Your task to perform on an android device: Go to eBay Image 0: 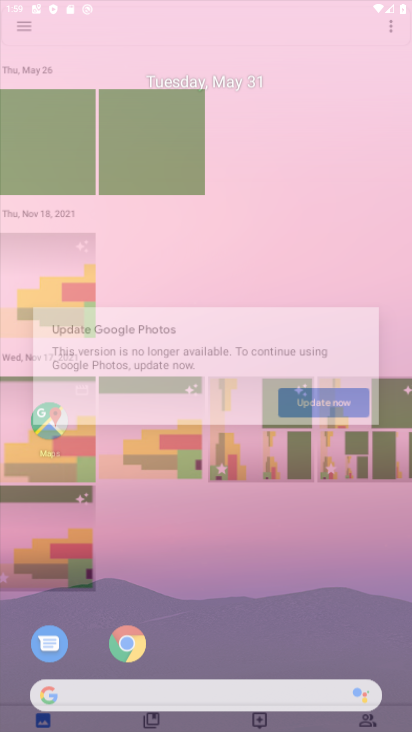
Step 0: click (133, 644)
Your task to perform on an android device: Go to eBay Image 1: 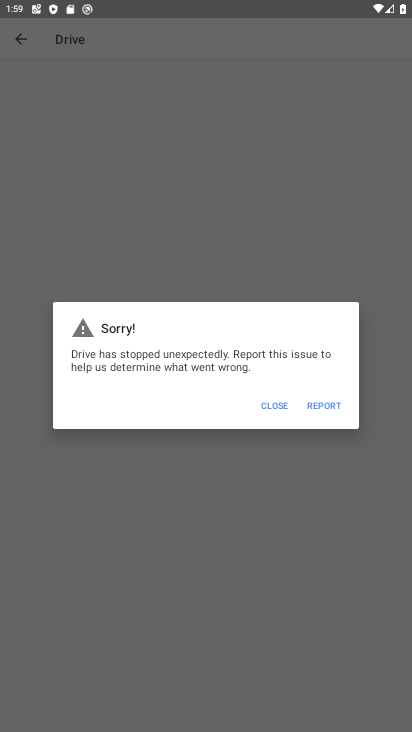
Step 1: press home button
Your task to perform on an android device: Go to eBay Image 2: 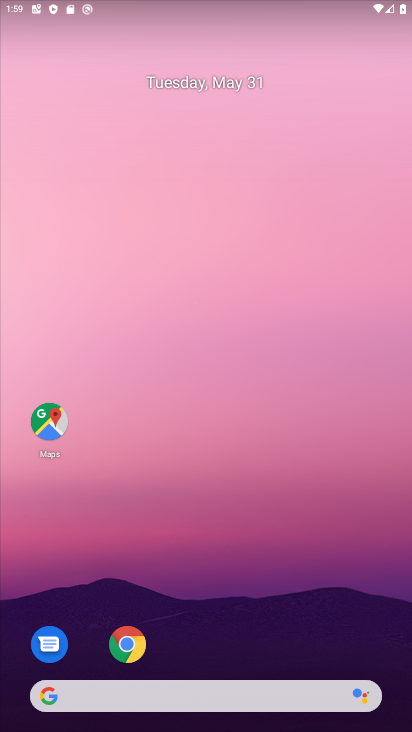
Step 2: click (131, 645)
Your task to perform on an android device: Go to eBay Image 3: 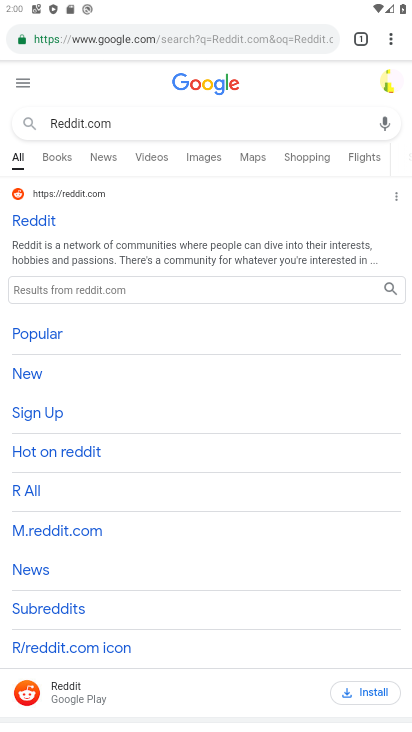
Step 3: click (328, 29)
Your task to perform on an android device: Go to eBay Image 4: 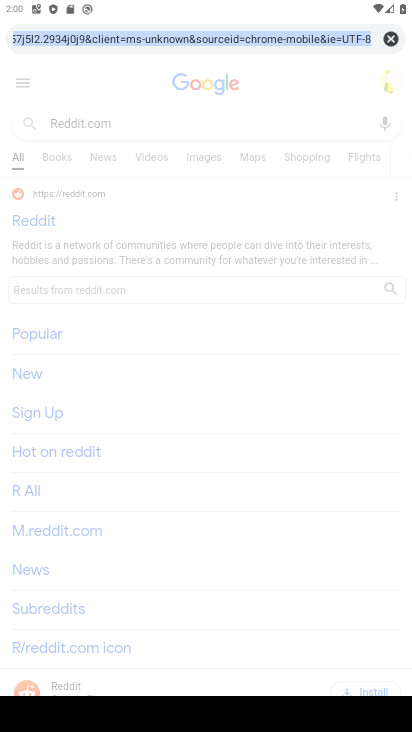
Step 4: click (384, 38)
Your task to perform on an android device: Go to eBay Image 5: 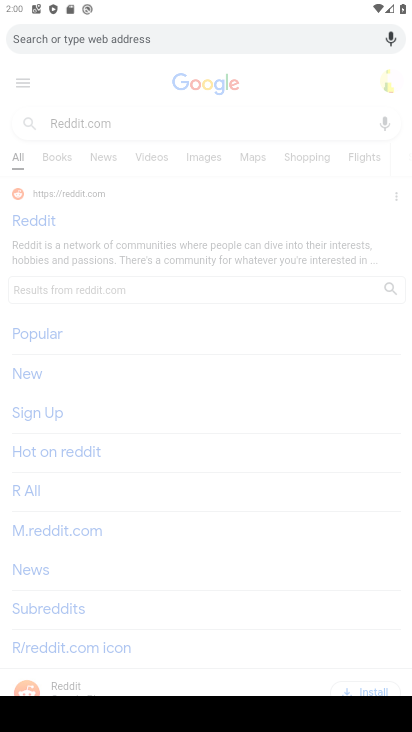
Step 5: type "eBay"
Your task to perform on an android device: Go to eBay Image 6: 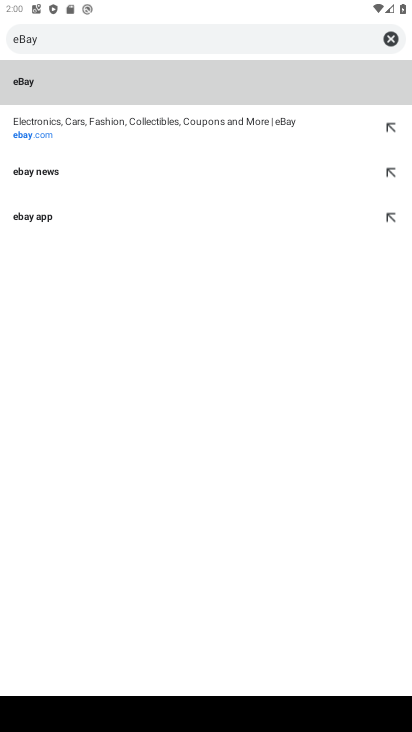
Step 6: click (18, 83)
Your task to perform on an android device: Go to eBay Image 7: 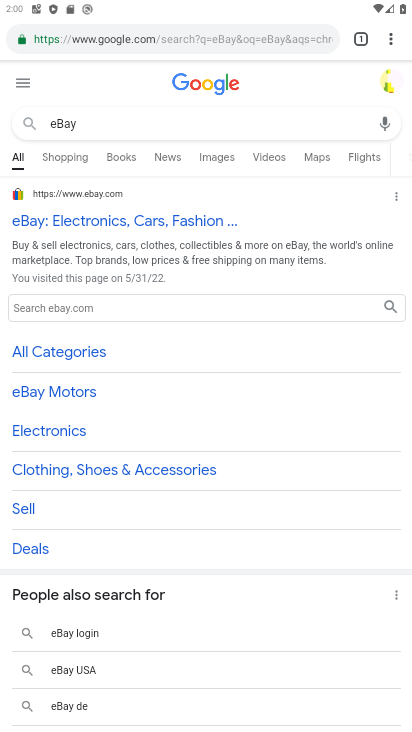
Step 7: task complete